Your task to perform on an android device: change the clock style Image 0: 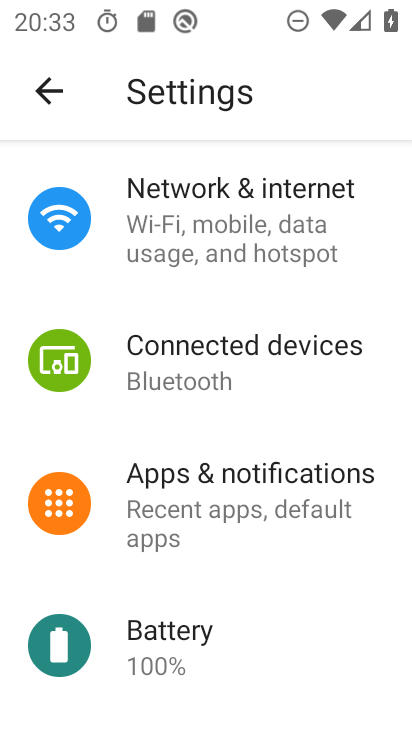
Step 0: press home button
Your task to perform on an android device: change the clock style Image 1: 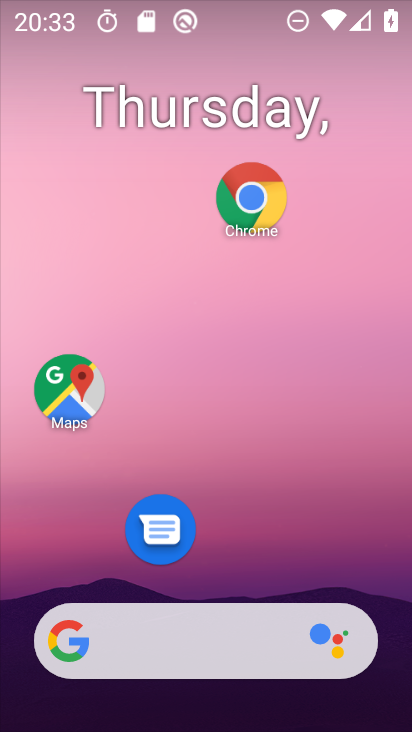
Step 1: drag from (246, 575) to (249, 236)
Your task to perform on an android device: change the clock style Image 2: 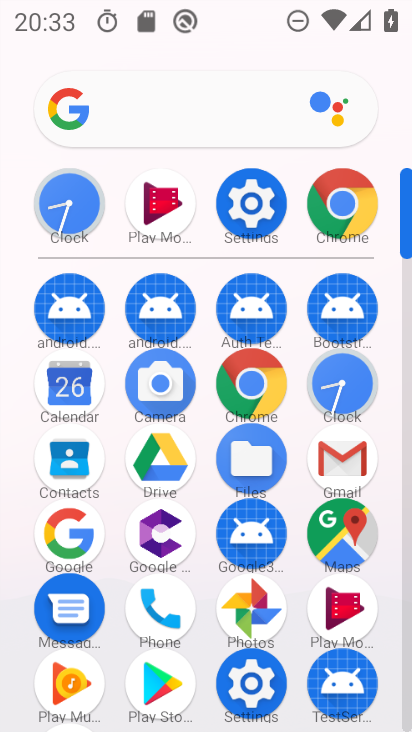
Step 2: click (340, 395)
Your task to perform on an android device: change the clock style Image 3: 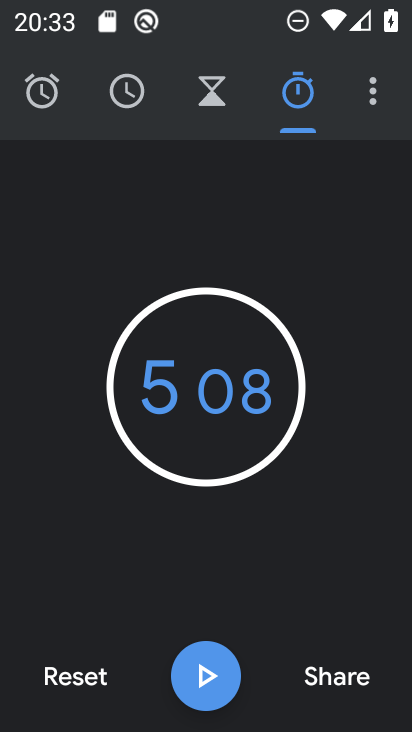
Step 3: click (368, 99)
Your task to perform on an android device: change the clock style Image 4: 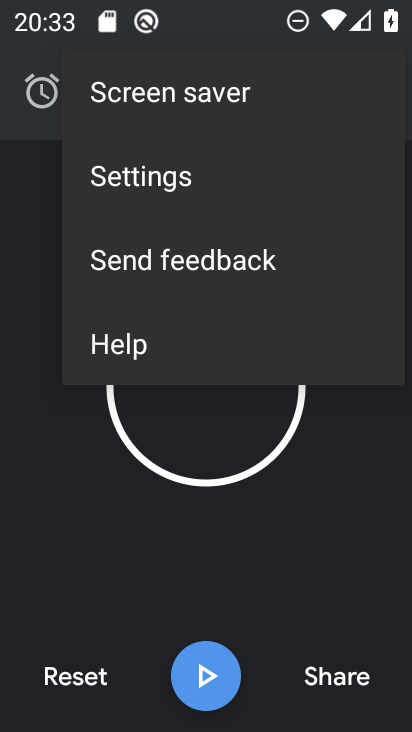
Step 4: click (203, 184)
Your task to perform on an android device: change the clock style Image 5: 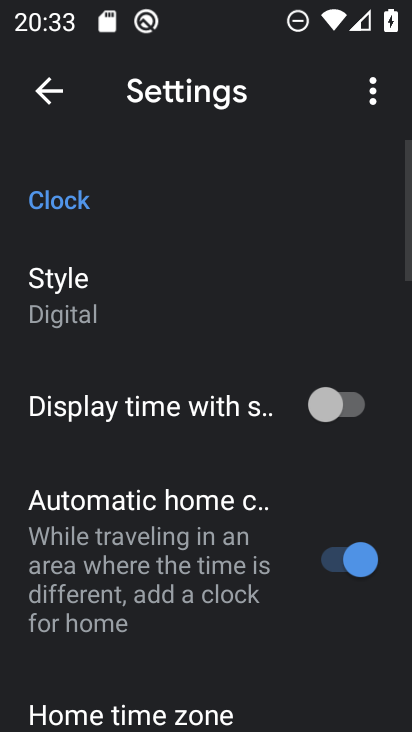
Step 5: click (68, 303)
Your task to perform on an android device: change the clock style Image 6: 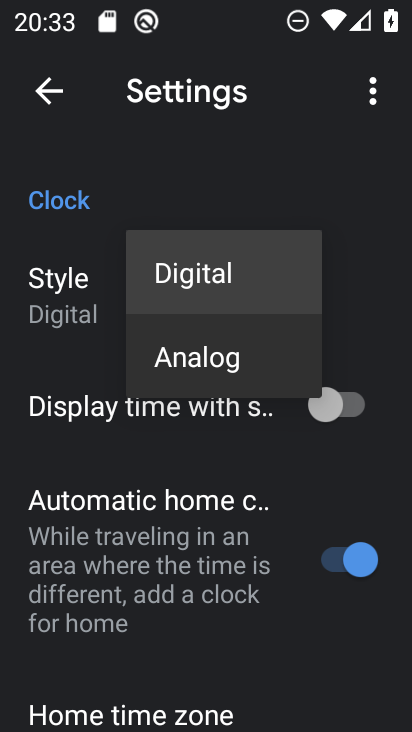
Step 6: click (173, 373)
Your task to perform on an android device: change the clock style Image 7: 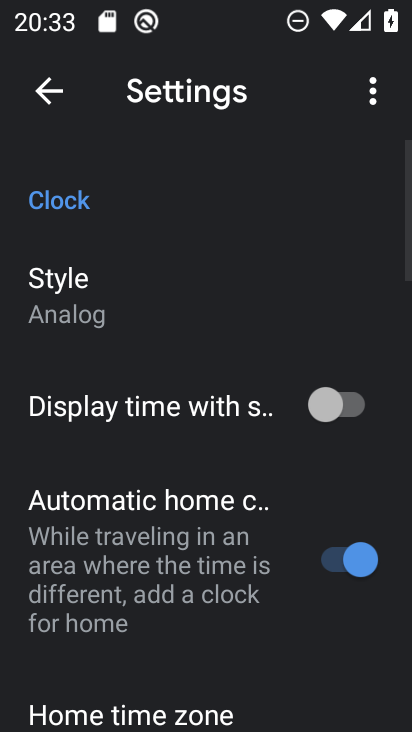
Step 7: task complete